Your task to perform on an android device: refresh tabs in the chrome app Image 0: 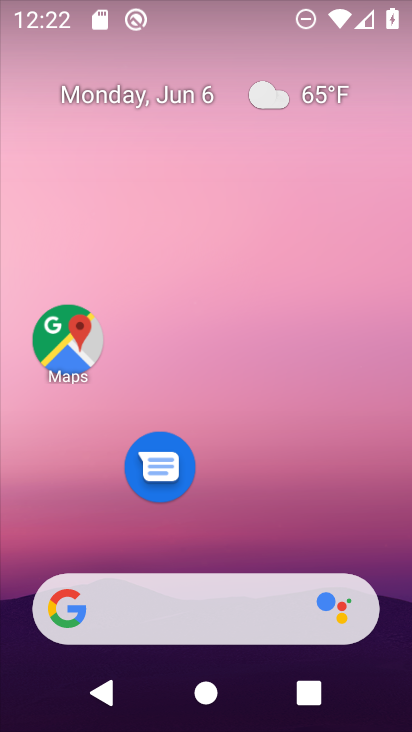
Step 0: drag from (290, 540) to (300, 66)
Your task to perform on an android device: refresh tabs in the chrome app Image 1: 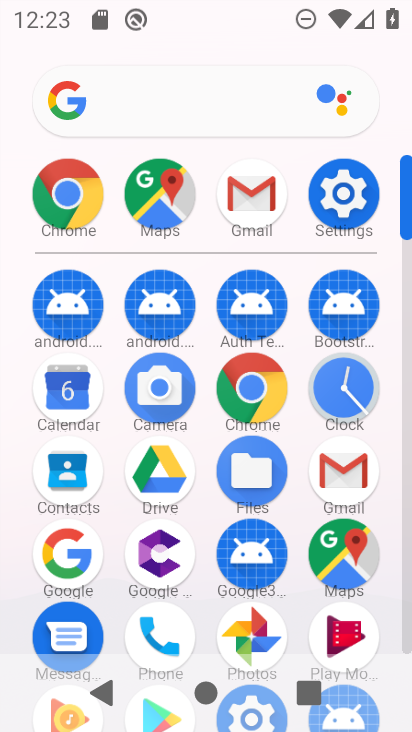
Step 1: click (75, 205)
Your task to perform on an android device: refresh tabs in the chrome app Image 2: 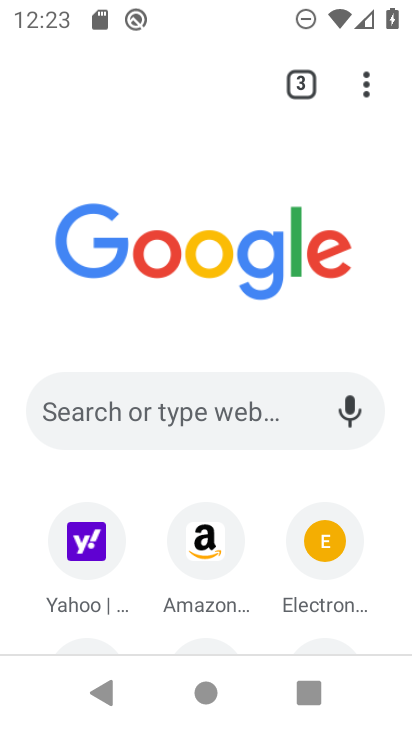
Step 2: click (357, 77)
Your task to perform on an android device: refresh tabs in the chrome app Image 3: 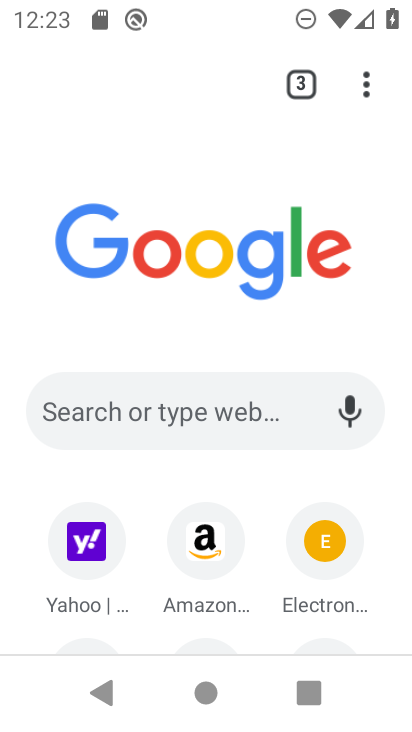
Step 3: click (357, 77)
Your task to perform on an android device: refresh tabs in the chrome app Image 4: 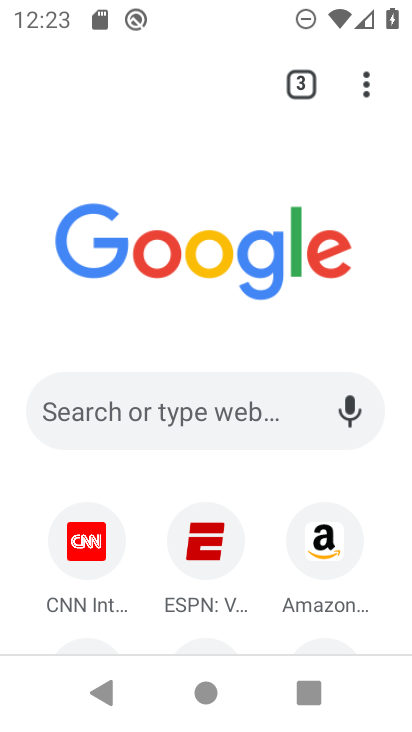
Step 4: click (357, 77)
Your task to perform on an android device: refresh tabs in the chrome app Image 5: 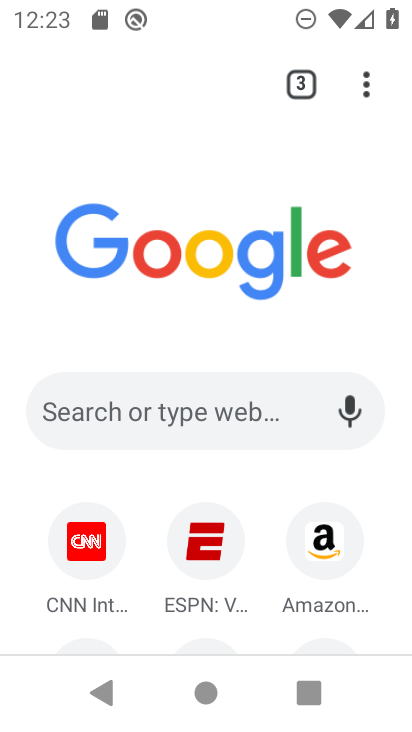
Step 5: click (357, 77)
Your task to perform on an android device: refresh tabs in the chrome app Image 6: 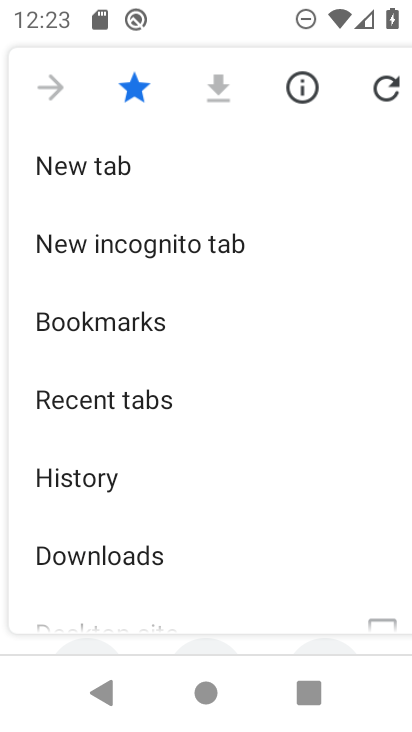
Step 6: click (390, 81)
Your task to perform on an android device: refresh tabs in the chrome app Image 7: 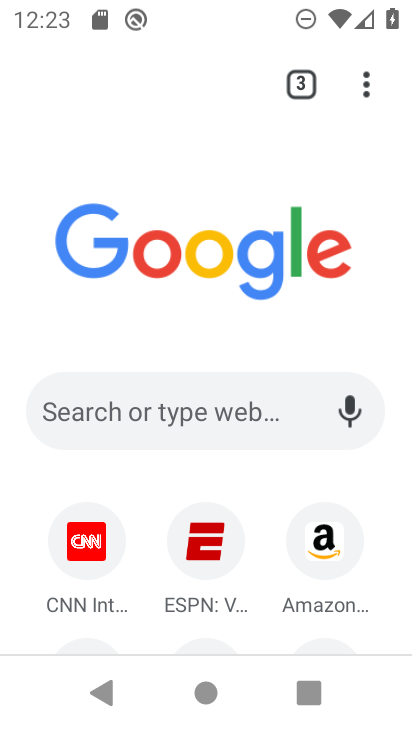
Step 7: task complete